Your task to perform on an android device: Search for usb-a on costco.com, select the first entry, add it to the cart, then select checkout. Image 0: 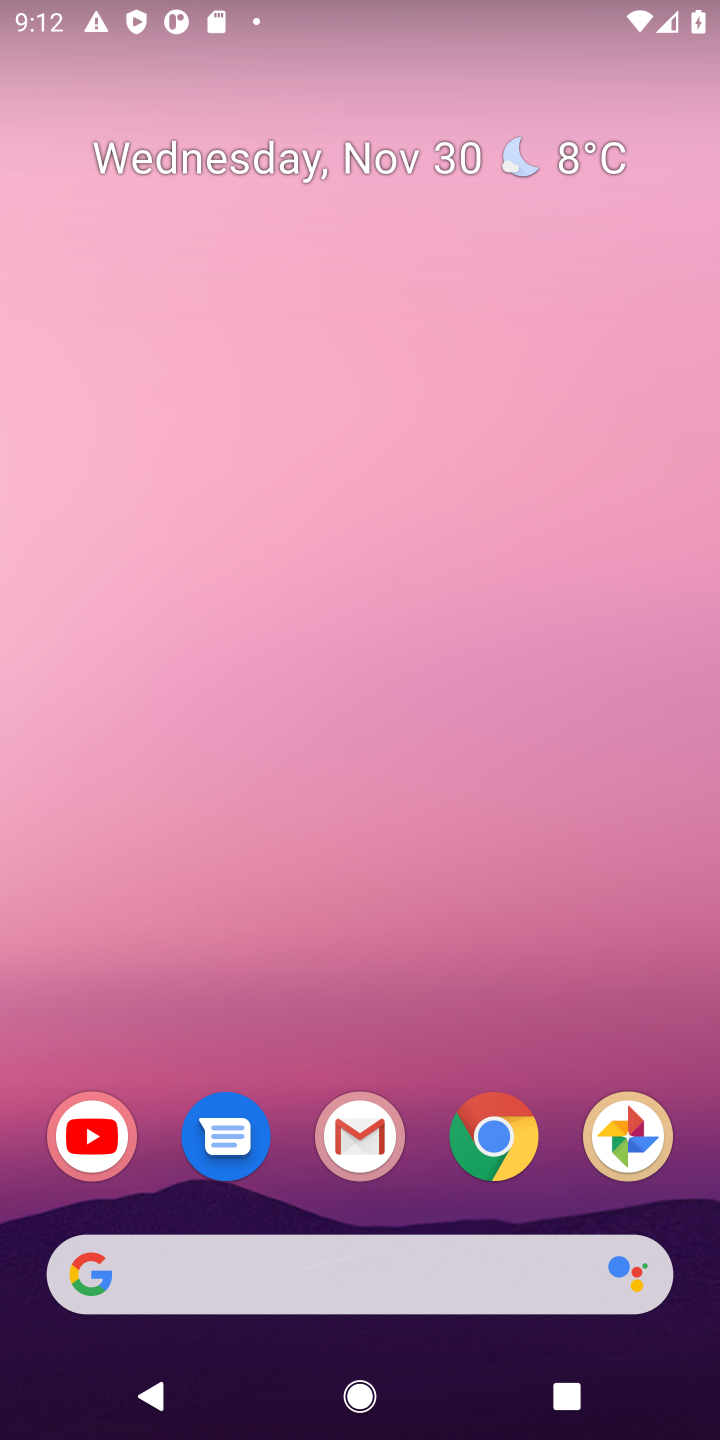
Step 0: click (498, 1149)
Your task to perform on an android device: Search for usb-a on costco.com, select the first entry, add it to the cart, then select checkout. Image 1: 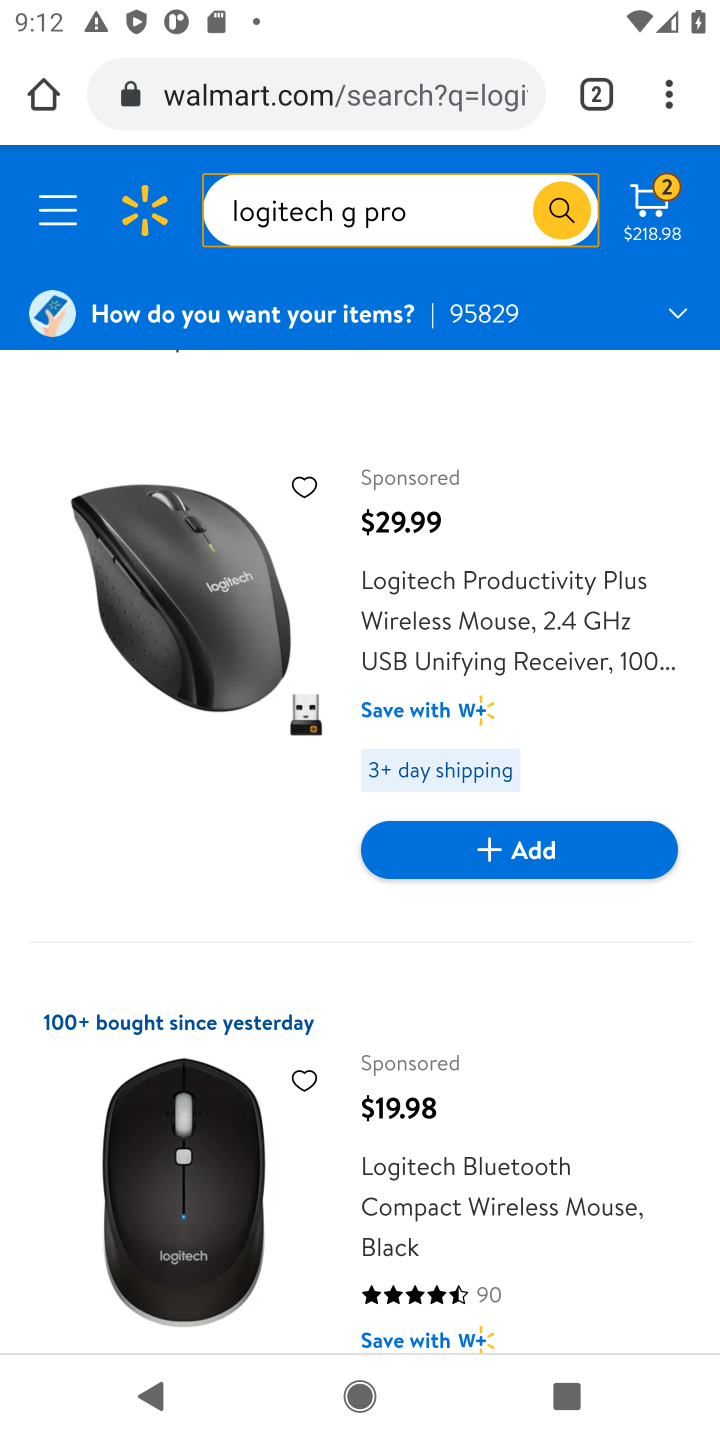
Step 1: click (315, 103)
Your task to perform on an android device: Search for usb-a on costco.com, select the first entry, add it to the cart, then select checkout. Image 2: 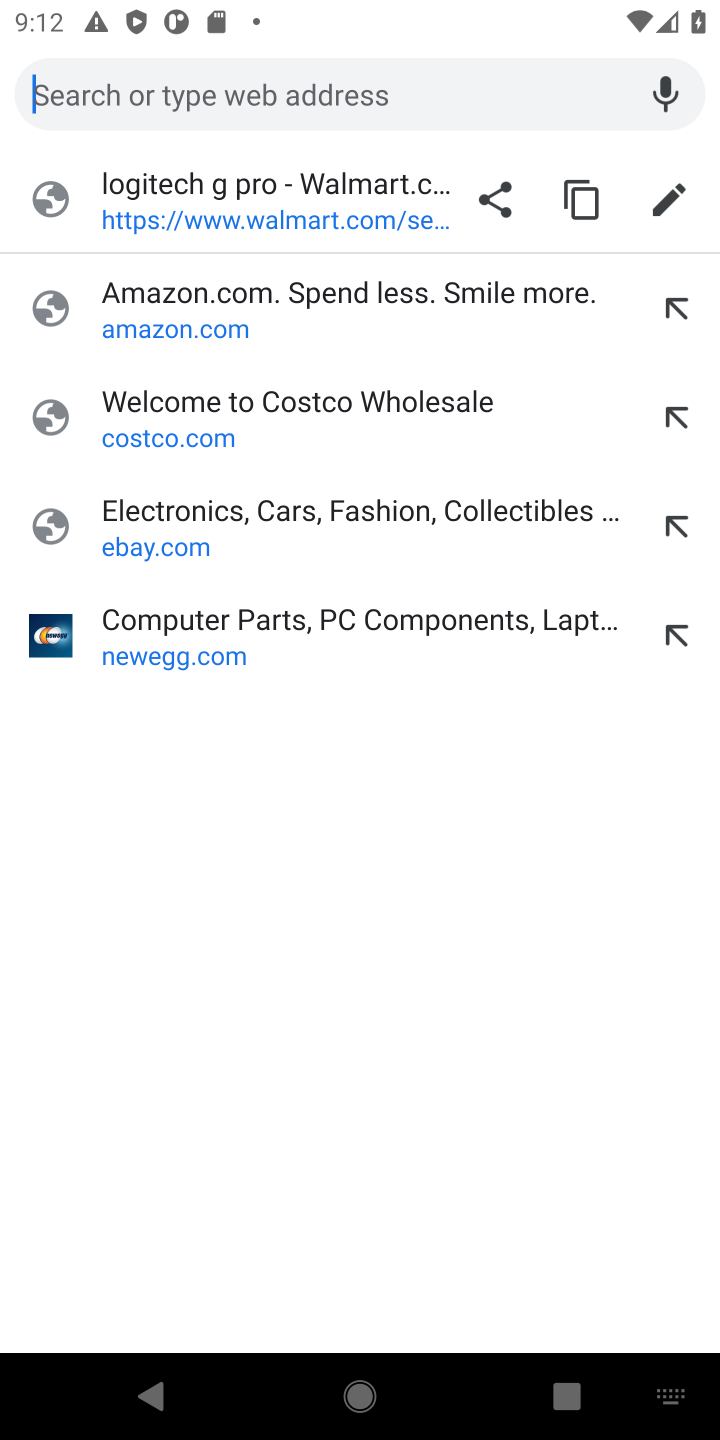
Step 2: click (148, 405)
Your task to perform on an android device: Search for usb-a on costco.com, select the first entry, add it to the cart, then select checkout. Image 3: 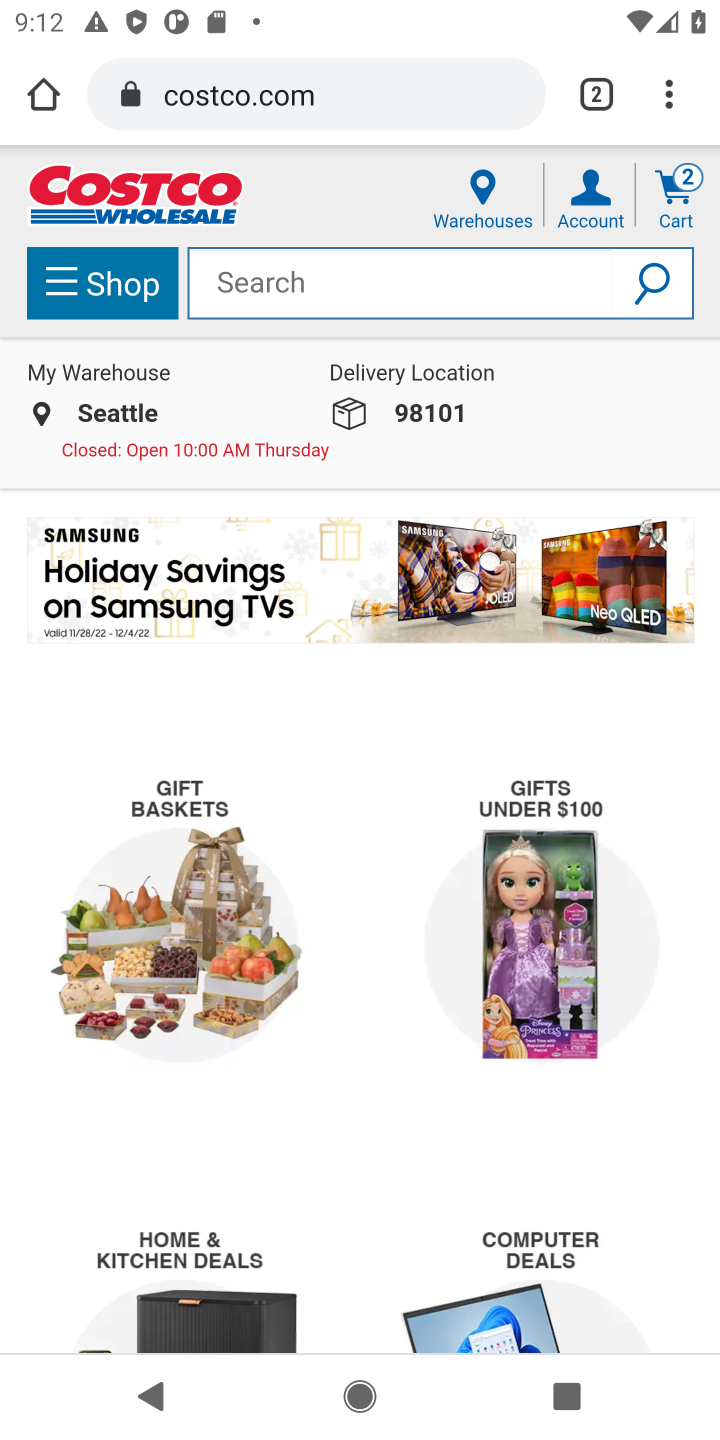
Step 3: click (333, 291)
Your task to perform on an android device: Search for usb-a on costco.com, select the first entry, add it to the cart, then select checkout. Image 4: 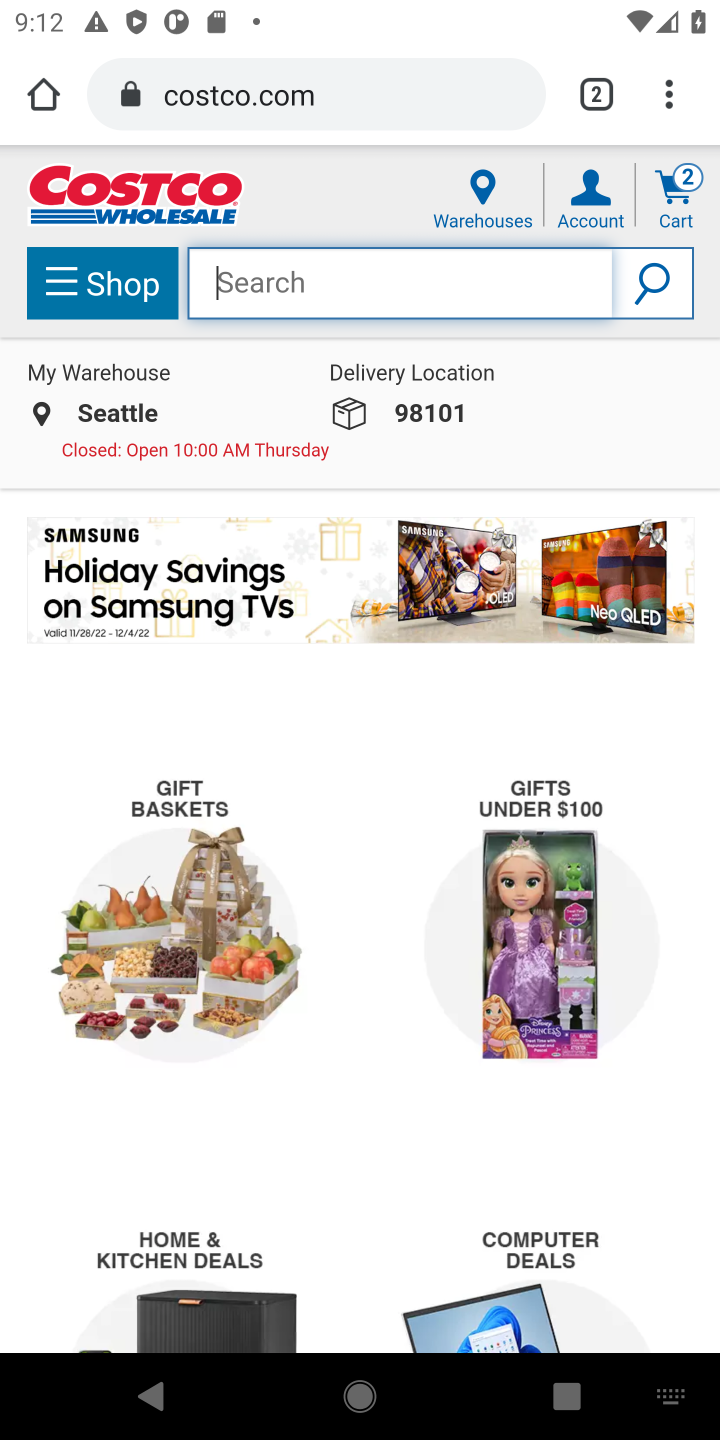
Step 4: type "usb-a"
Your task to perform on an android device: Search for usb-a on costco.com, select the first entry, add it to the cart, then select checkout. Image 5: 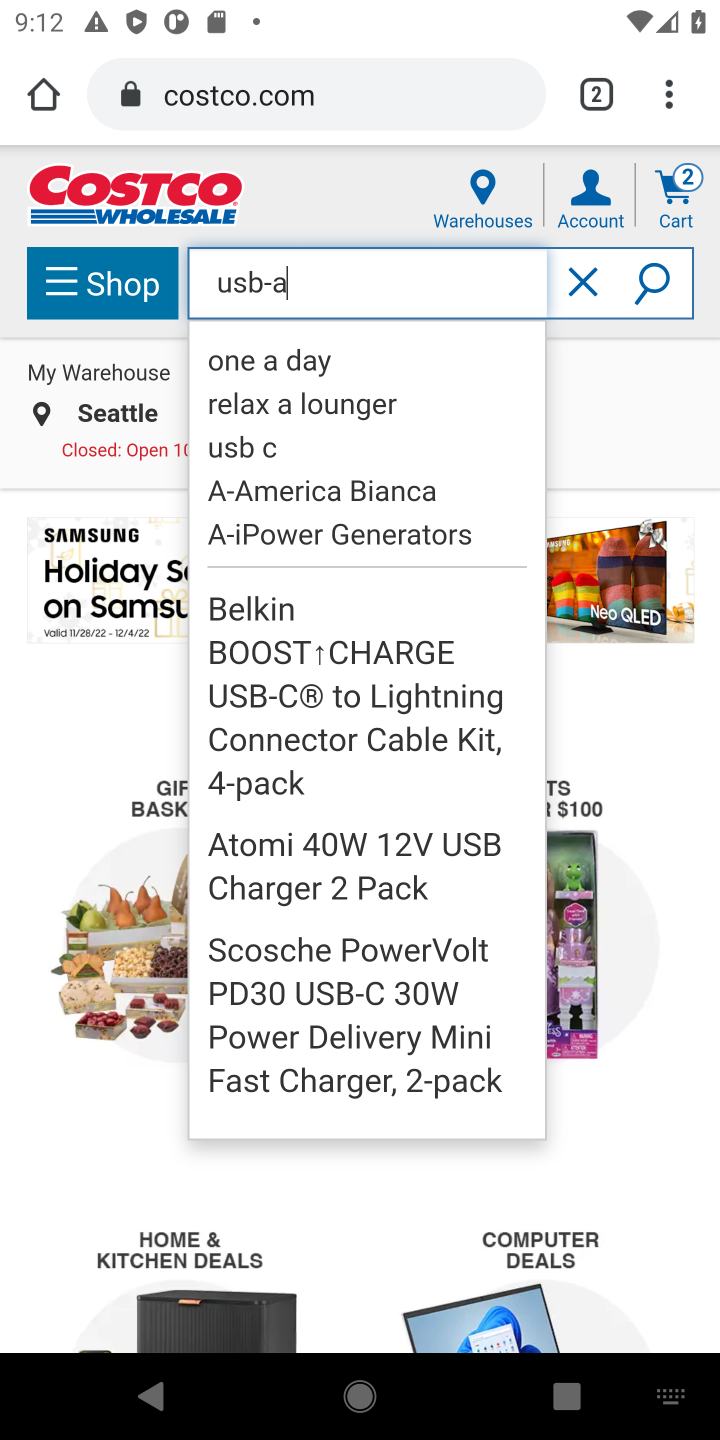
Step 5: click (649, 292)
Your task to perform on an android device: Search for usb-a on costco.com, select the first entry, add it to the cart, then select checkout. Image 6: 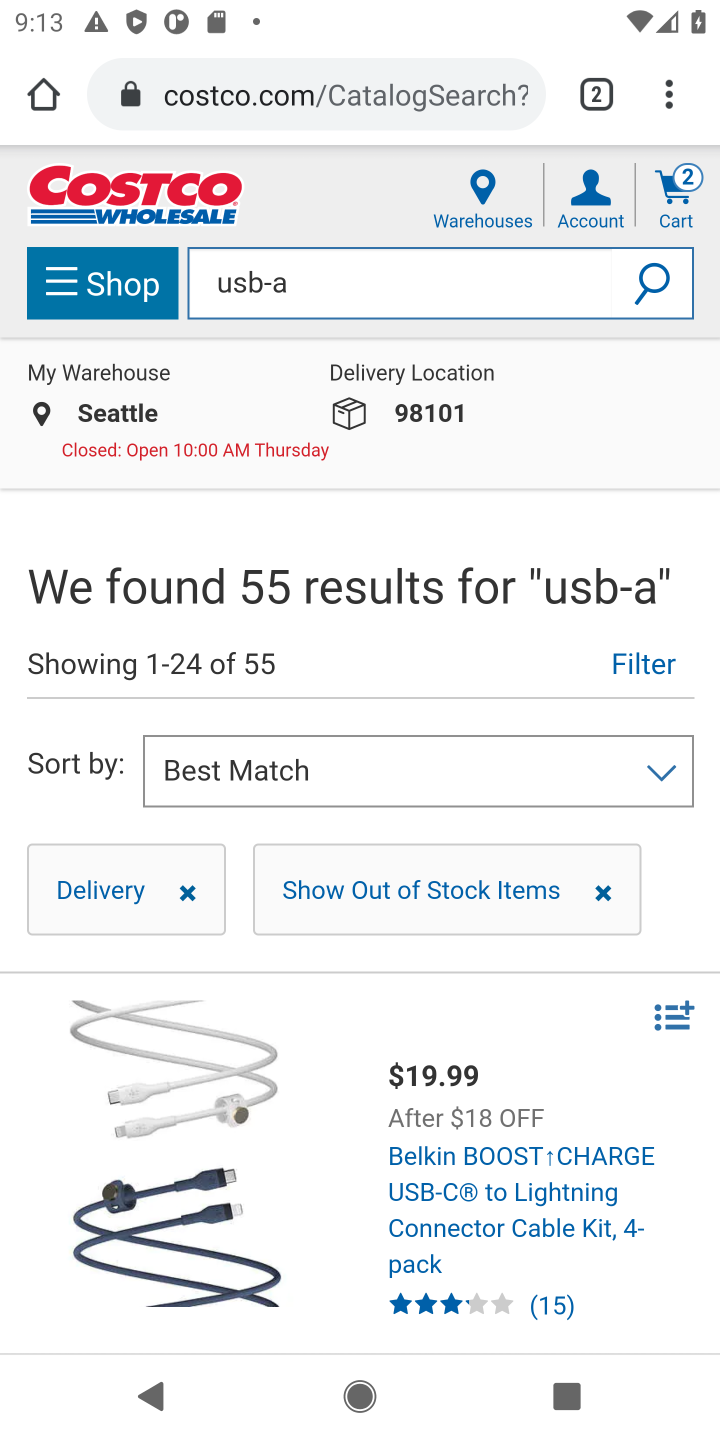
Step 6: task complete